Your task to perform on an android device: refresh tabs in the chrome app Image 0: 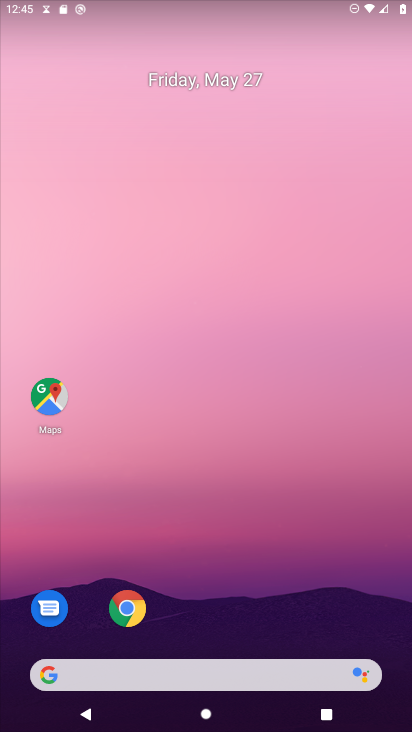
Step 0: press home button
Your task to perform on an android device: refresh tabs in the chrome app Image 1: 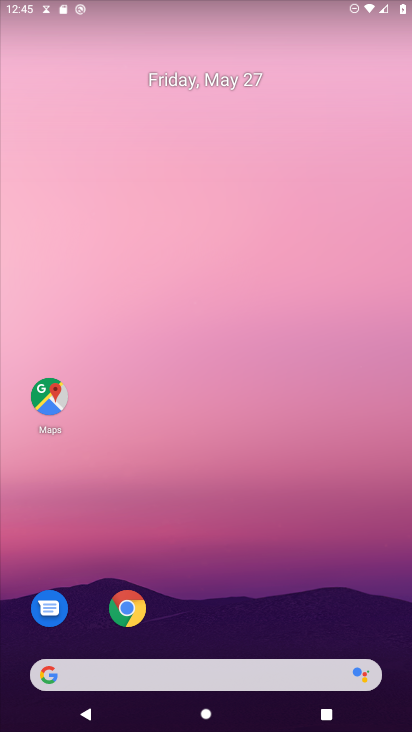
Step 1: click (124, 614)
Your task to perform on an android device: refresh tabs in the chrome app Image 2: 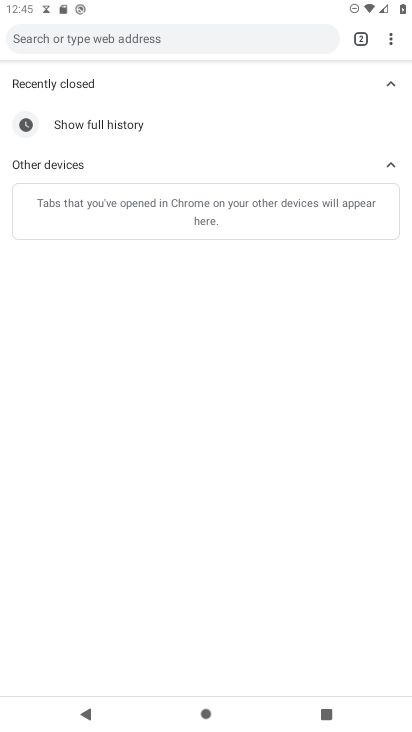
Step 2: click (390, 40)
Your task to perform on an android device: refresh tabs in the chrome app Image 3: 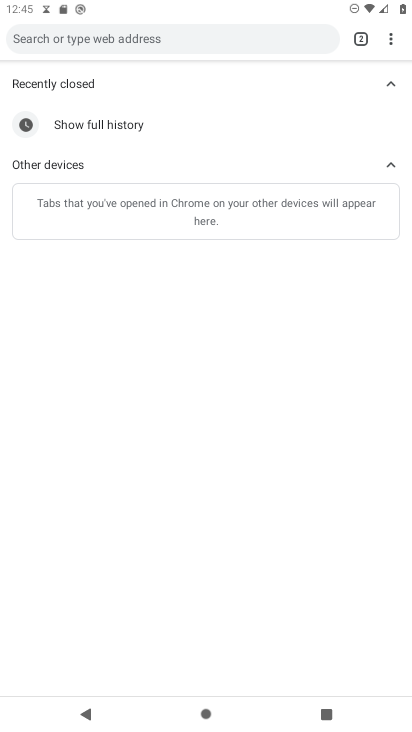
Step 3: click (390, 44)
Your task to perform on an android device: refresh tabs in the chrome app Image 4: 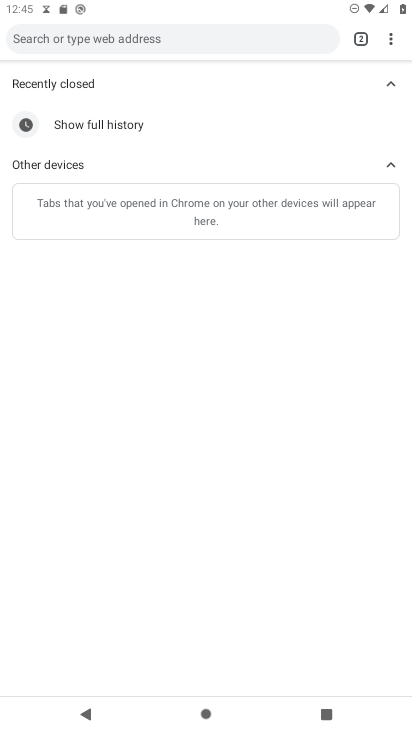
Step 4: click (387, 50)
Your task to perform on an android device: refresh tabs in the chrome app Image 5: 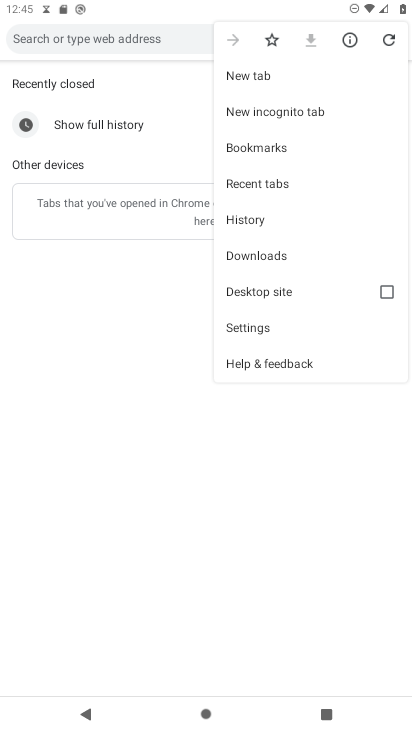
Step 5: click (387, 35)
Your task to perform on an android device: refresh tabs in the chrome app Image 6: 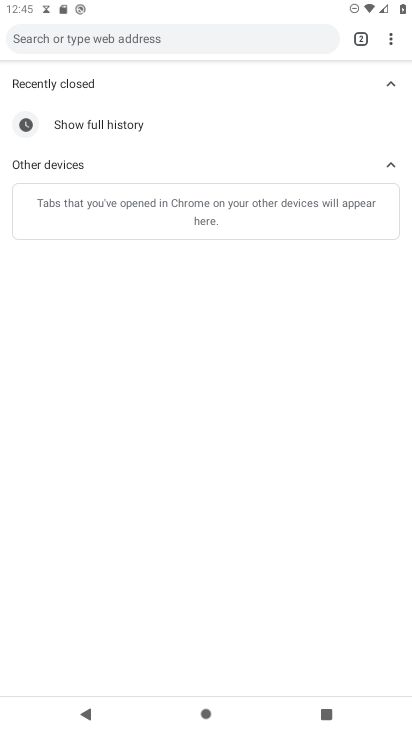
Step 6: task complete